Your task to perform on an android device: open app "Nova Launcher" Image 0: 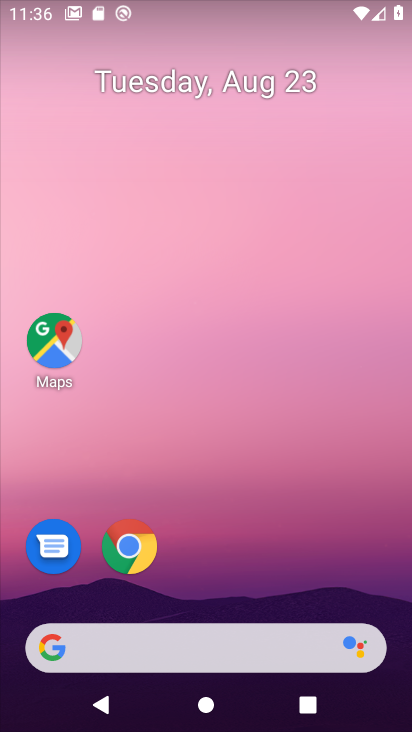
Step 0: drag from (198, 628) to (225, 127)
Your task to perform on an android device: open app "Nova Launcher" Image 1: 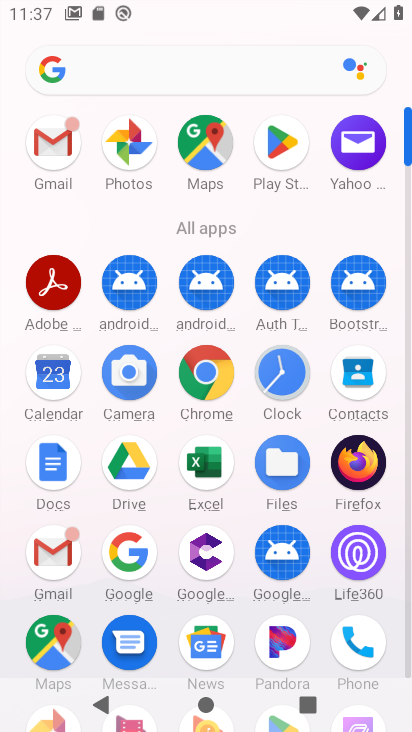
Step 1: click (269, 145)
Your task to perform on an android device: open app "Nova Launcher" Image 2: 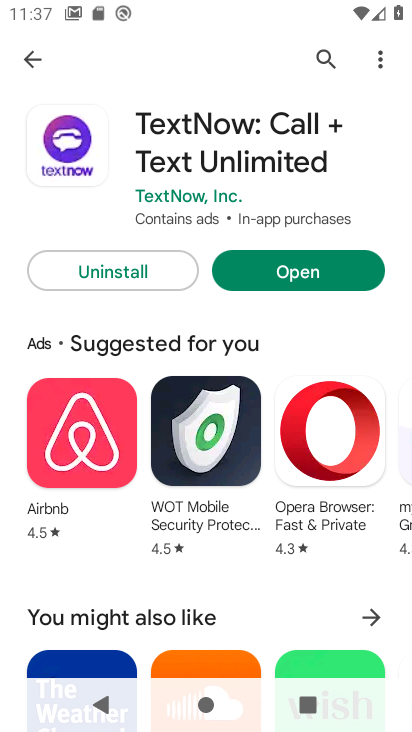
Step 2: click (25, 53)
Your task to perform on an android device: open app "Nova Launcher" Image 3: 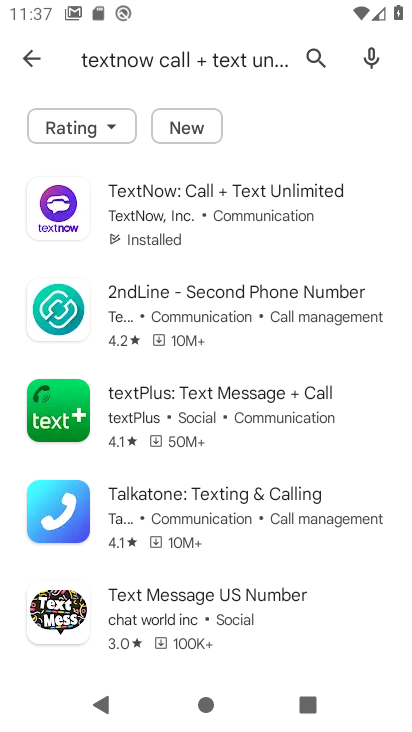
Step 3: click (41, 53)
Your task to perform on an android device: open app "Nova Launcher" Image 4: 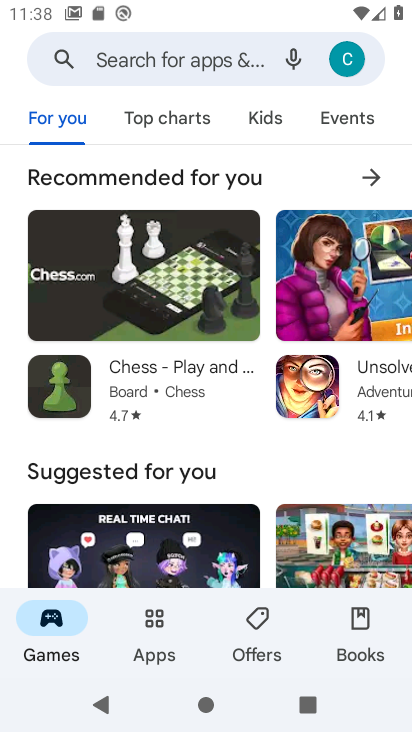
Step 4: click (168, 49)
Your task to perform on an android device: open app "Nova Launcher" Image 5: 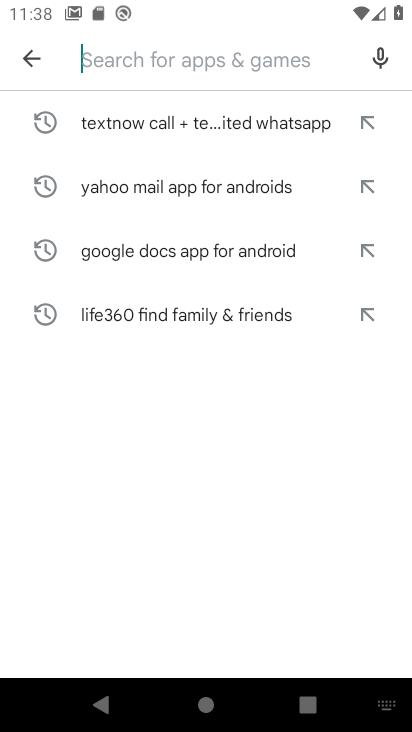
Step 5: type "Nova Launcher "
Your task to perform on an android device: open app "Nova Launcher" Image 6: 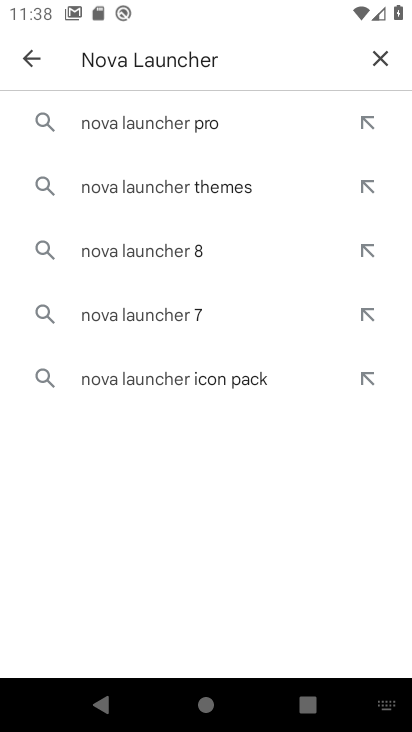
Step 6: click (154, 122)
Your task to perform on an android device: open app "Nova Launcher" Image 7: 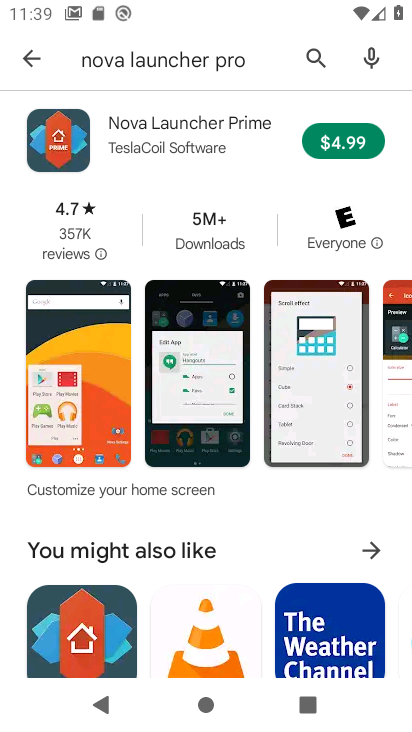
Step 7: task complete